Your task to perform on an android device: What's on my calendar tomorrow? Image 0: 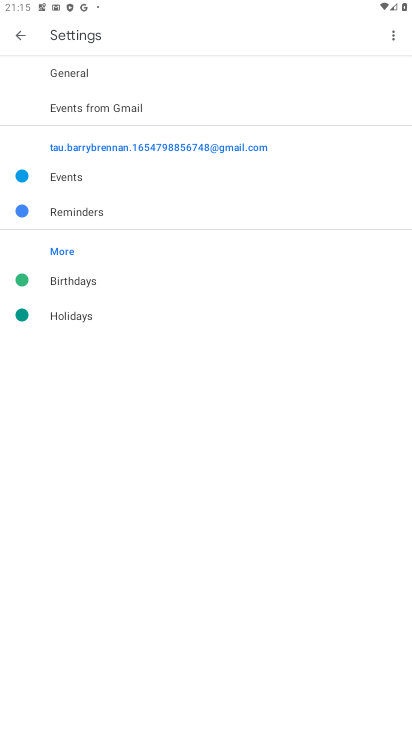
Step 0: click (22, 34)
Your task to perform on an android device: What's on my calendar tomorrow? Image 1: 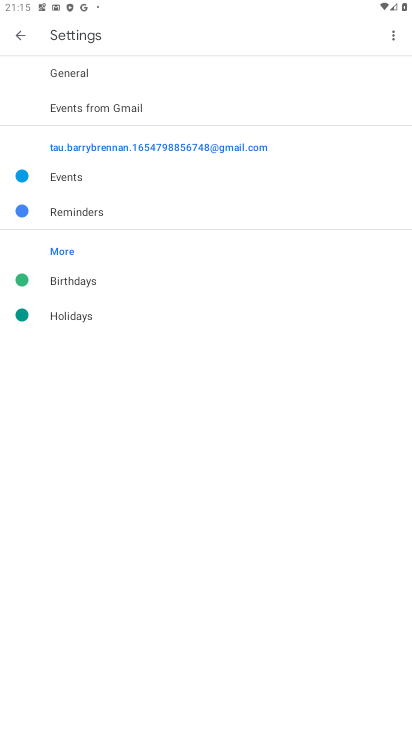
Step 1: click (22, 34)
Your task to perform on an android device: What's on my calendar tomorrow? Image 2: 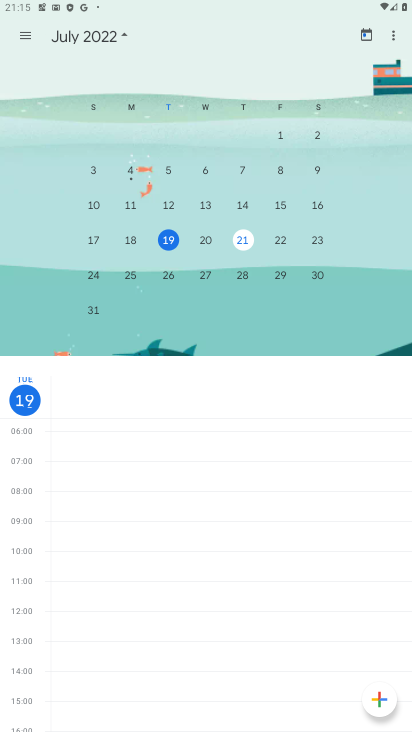
Step 2: click (247, 238)
Your task to perform on an android device: What's on my calendar tomorrow? Image 3: 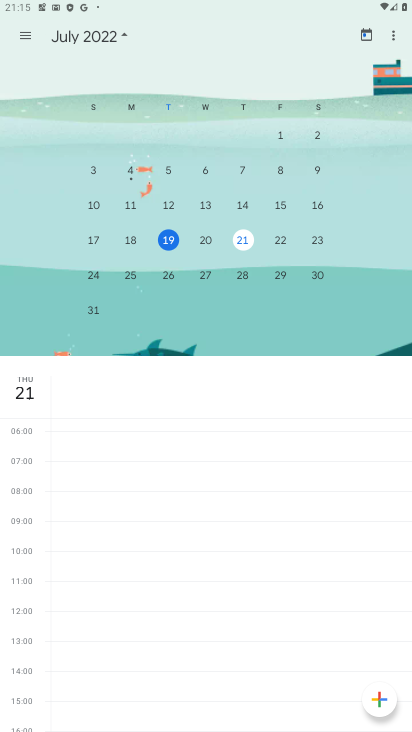
Step 3: task complete